Your task to perform on an android device: Open privacy settings Image 0: 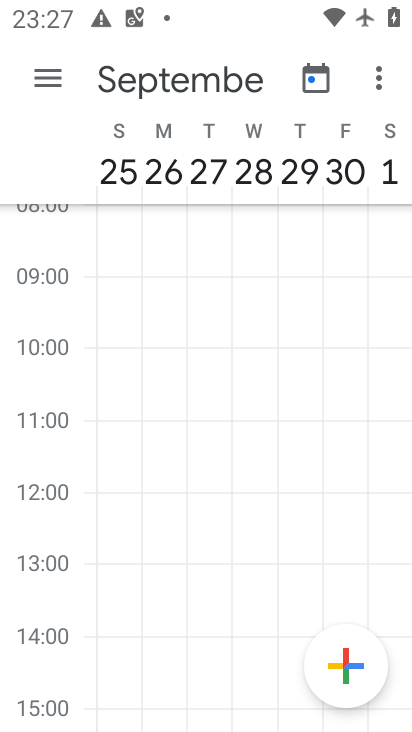
Step 0: press home button
Your task to perform on an android device: Open privacy settings Image 1: 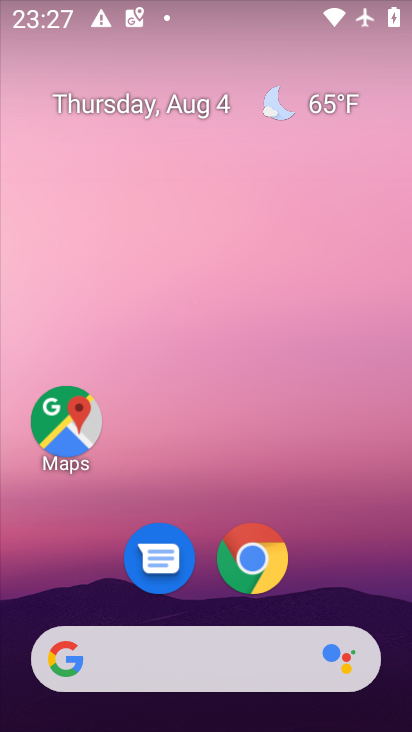
Step 1: drag from (351, 575) to (338, 37)
Your task to perform on an android device: Open privacy settings Image 2: 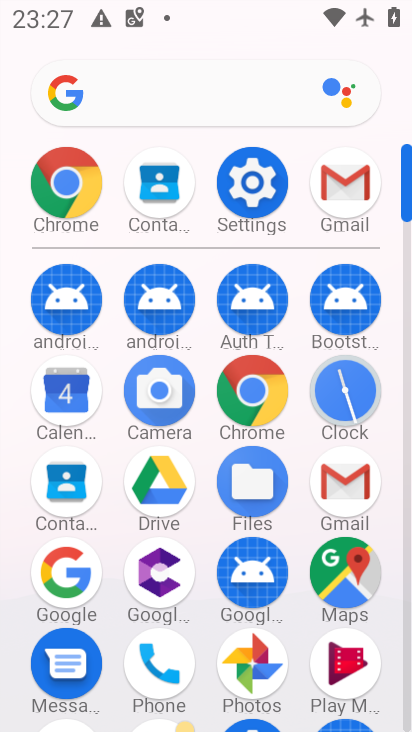
Step 2: click (254, 180)
Your task to perform on an android device: Open privacy settings Image 3: 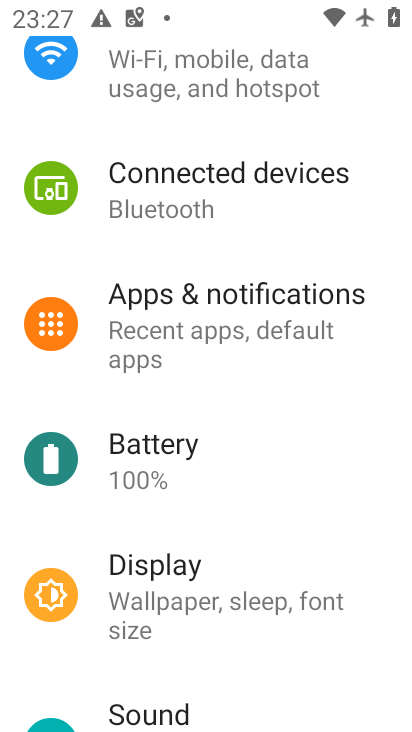
Step 3: drag from (293, 552) to (270, 23)
Your task to perform on an android device: Open privacy settings Image 4: 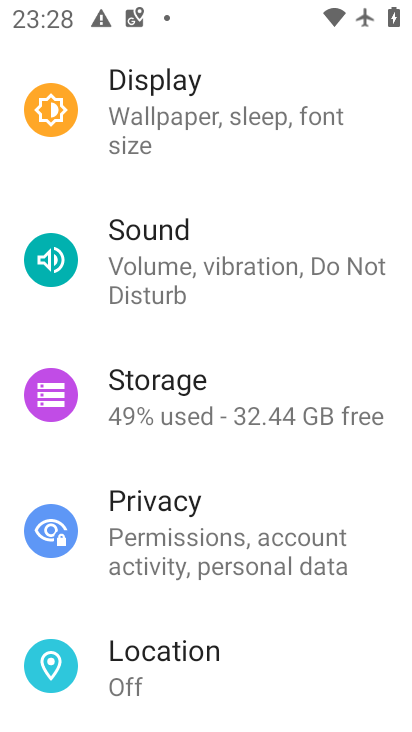
Step 4: click (157, 516)
Your task to perform on an android device: Open privacy settings Image 5: 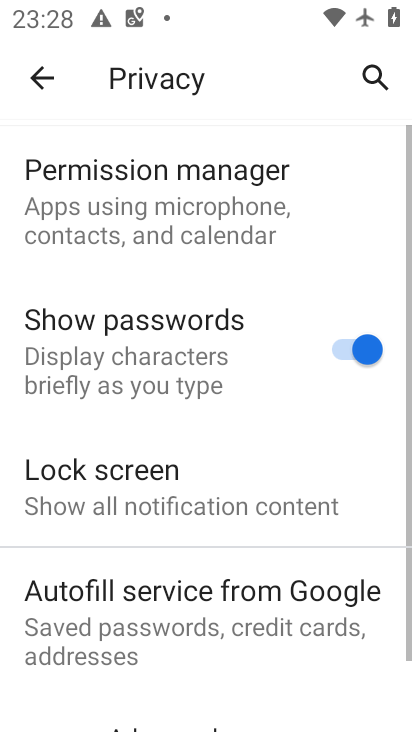
Step 5: task complete